Your task to perform on an android device: Go to battery settings Image 0: 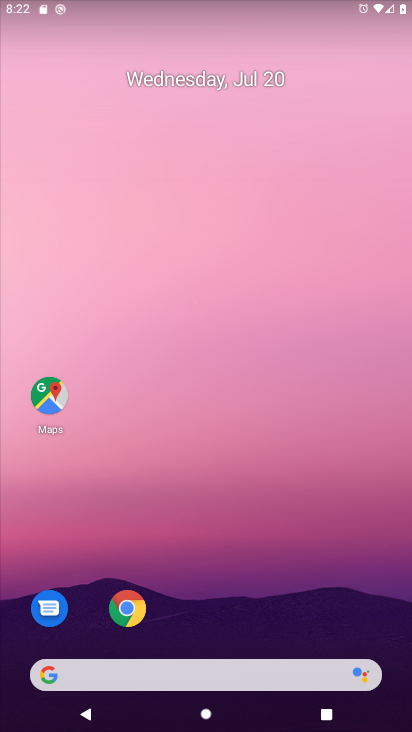
Step 0: drag from (274, 601) to (311, 173)
Your task to perform on an android device: Go to battery settings Image 1: 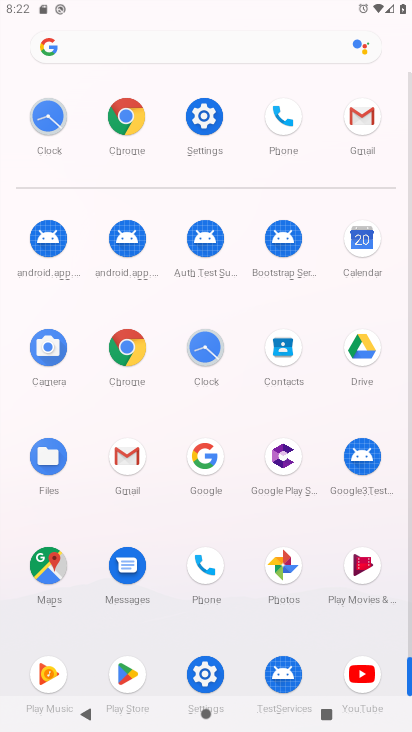
Step 1: click (210, 108)
Your task to perform on an android device: Go to battery settings Image 2: 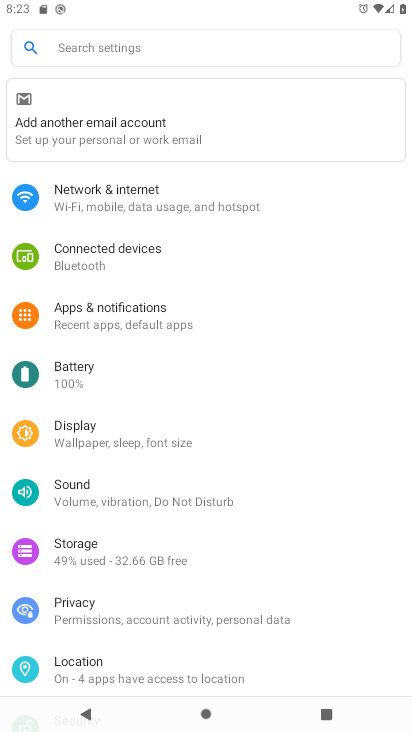
Step 2: click (105, 369)
Your task to perform on an android device: Go to battery settings Image 3: 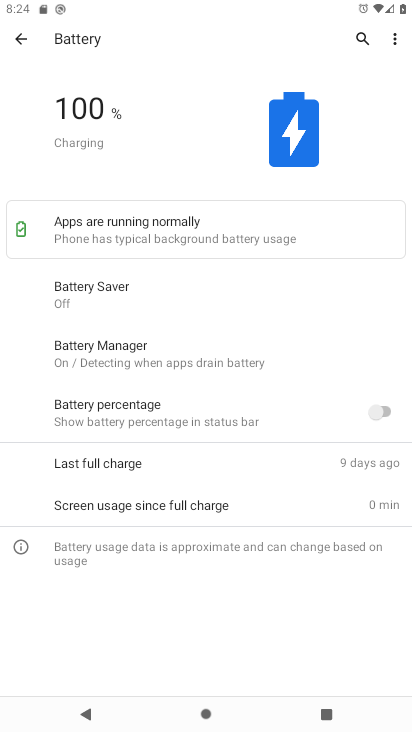
Step 3: task complete